Your task to perform on an android device: turn on the 12-hour format for clock Image 0: 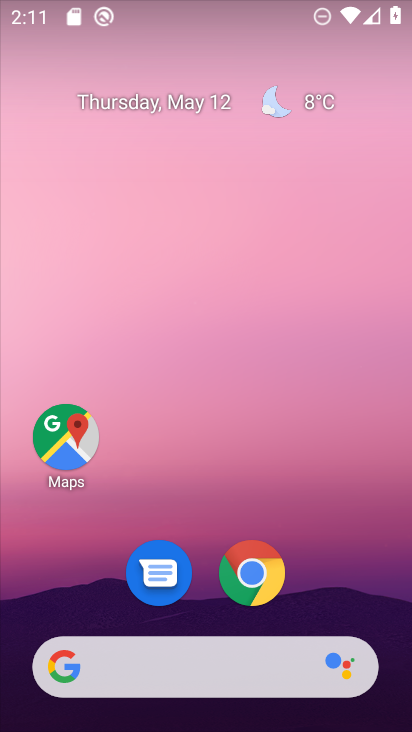
Step 0: drag from (385, 600) to (240, 252)
Your task to perform on an android device: turn on the 12-hour format for clock Image 1: 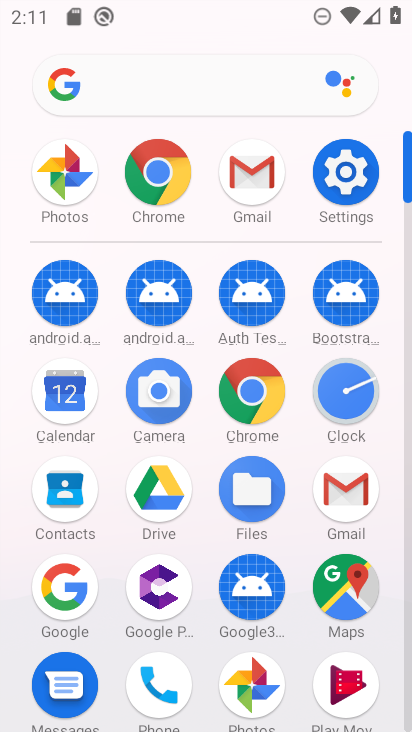
Step 1: click (344, 391)
Your task to perform on an android device: turn on the 12-hour format for clock Image 2: 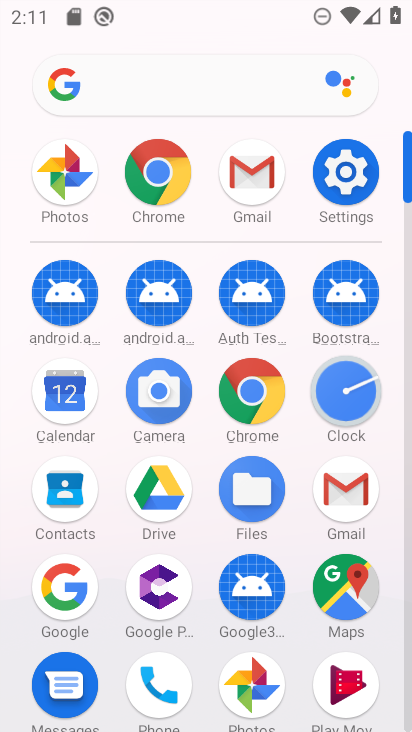
Step 2: click (342, 391)
Your task to perform on an android device: turn on the 12-hour format for clock Image 3: 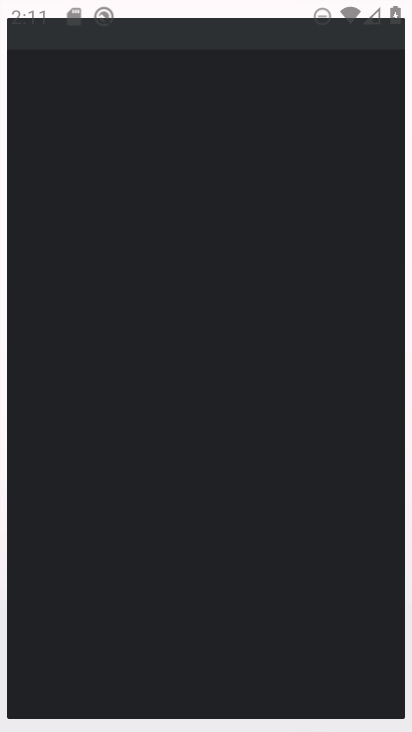
Step 3: click (328, 404)
Your task to perform on an android device: turn on the 12-hour format for clock Image 4: 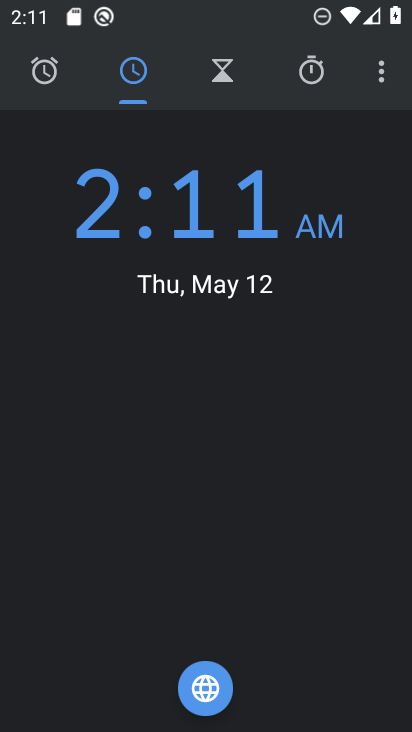
Step 4: click (384, 69)
Your task to perform on an android device: turn on the 12-hour format for clock Image 5: 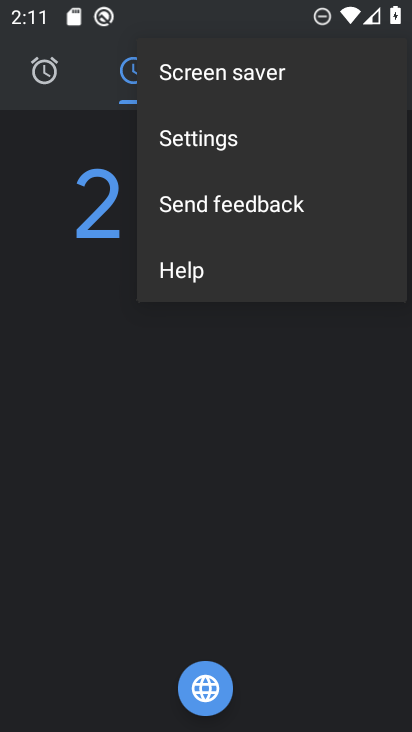
Step 5: click (199, 136)
Your task to perform on an android device: turn on the 12-hour format for clock Image 6: 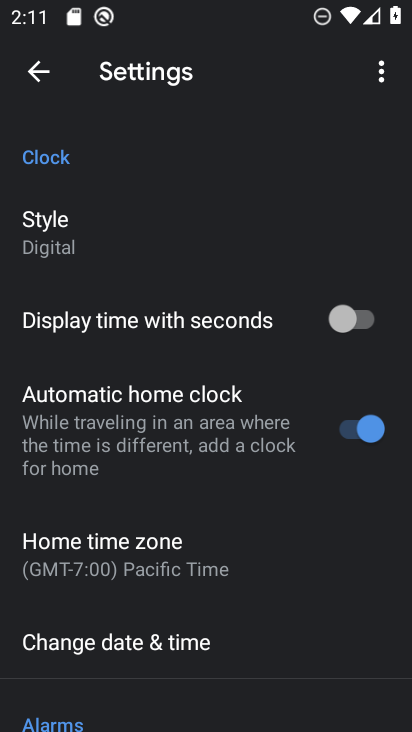
Step 6: drag from (269, 502) to (199, 2)
Your task to perform on an android device: turn on the 12-hour format for clock Image 7: 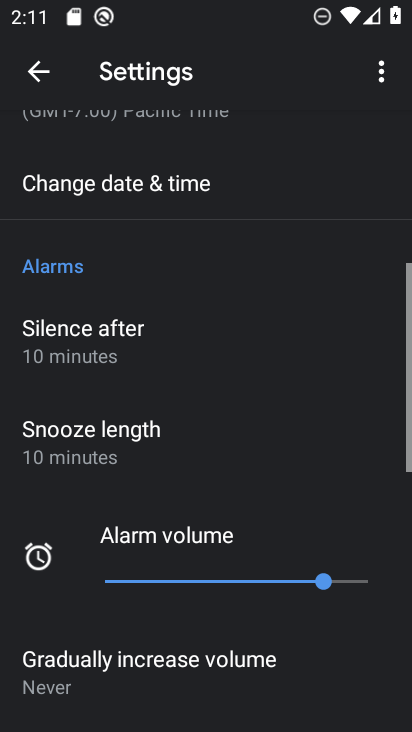
Step 7: drag from (321, 366) to (218, 49)
Your task to perform on an android device: turn on the 12-hour format for clock Image 8: 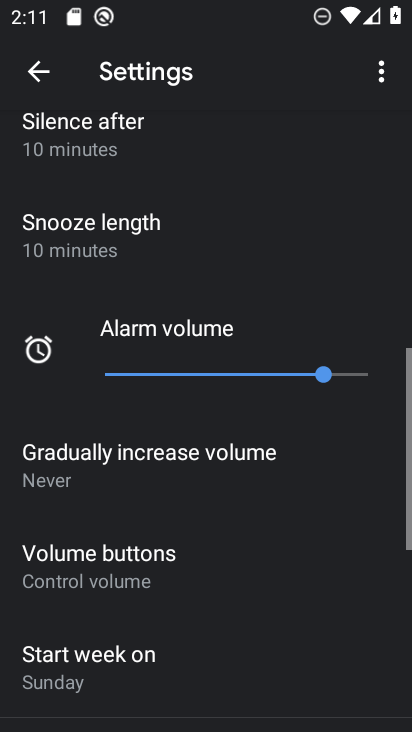
Step 8: drag from (234, 508) to (253, 174)
Your task to perform on an android device: turn on the 12-hour format for clock Image 9: 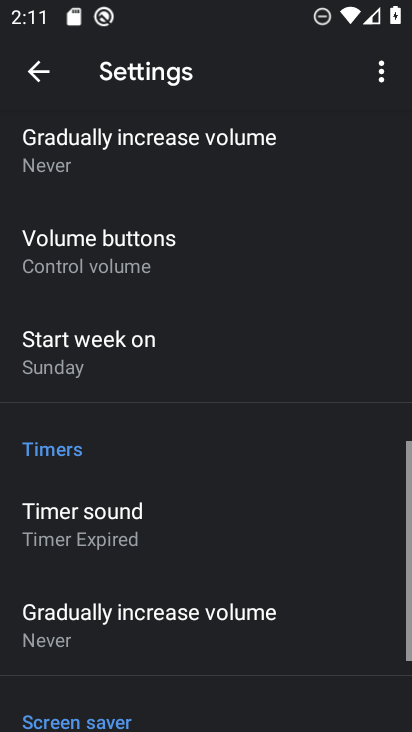
Step 9: drag from (236, 488) to (173, 109)
Your task to perform on an android device: turn on the 12-hour format for clock Image 10: 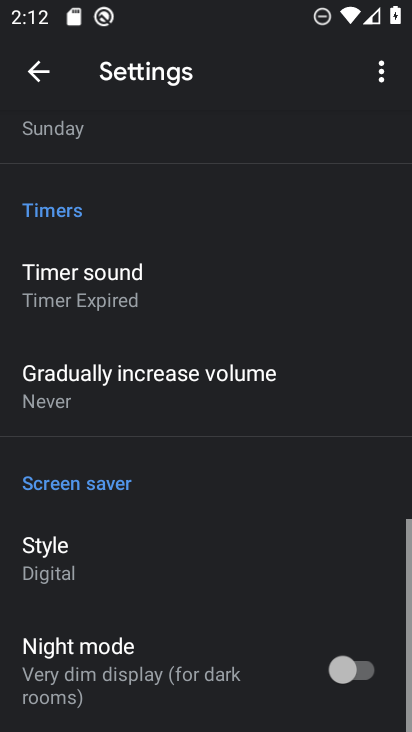
Step 10: drag from (235, 383) to (216, 16)
Your task to perform on an android device: turn on the 12-hour format for clock Image 11: 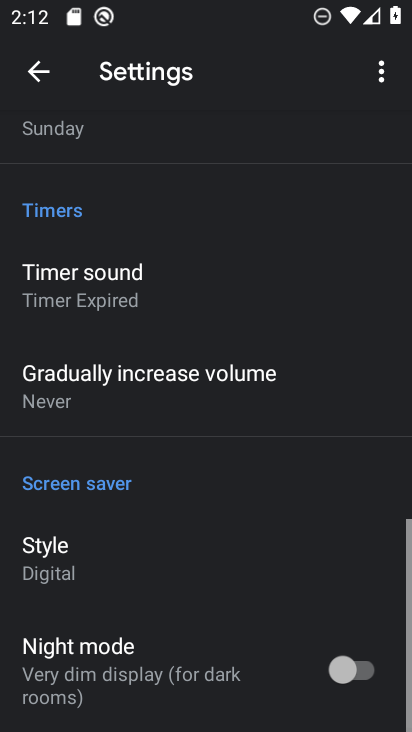
Step 11: drag from (247, 436) to (216, 177)
Your task to perform on an android device: turn on the 12-hour format for clock Image 12: 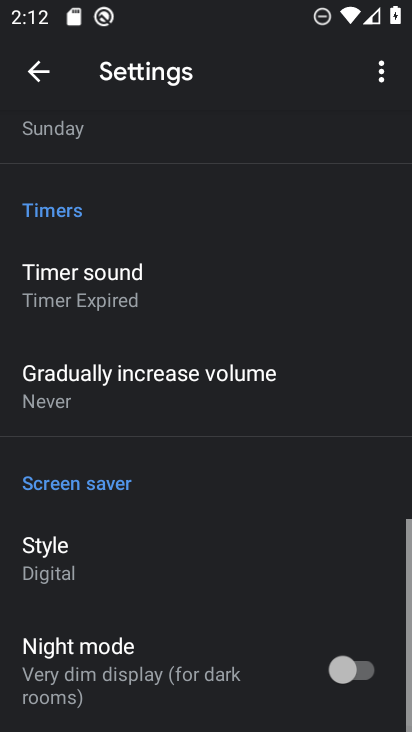
Step 12: drag from (240, 396) to (253, 19)
Your task to perform on an android device: turn on the 12-hour format for clock Image 13: 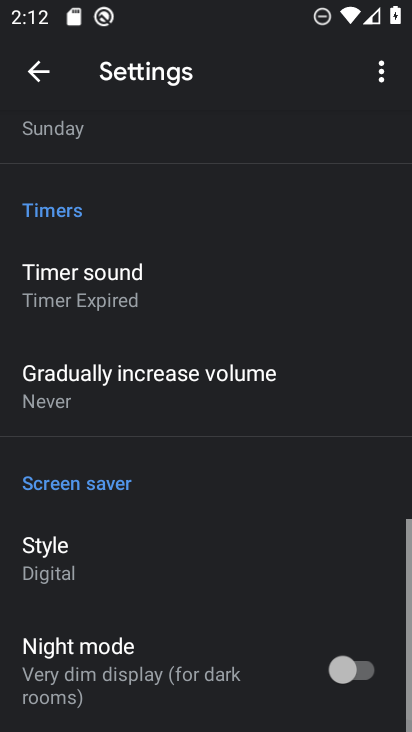
Step 13: drag from (294, 447) to (246, 80)
Your task to perform on an android device: turn on the 12-hour format for clock Image 14: 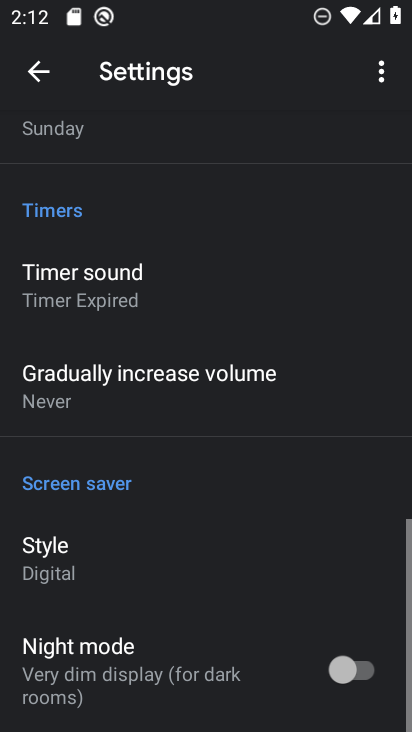
Step 14: drag from (259, 415) to (238, 20)
Your task to perform on an android device: turn on the 12-hour format for clock Image 15: 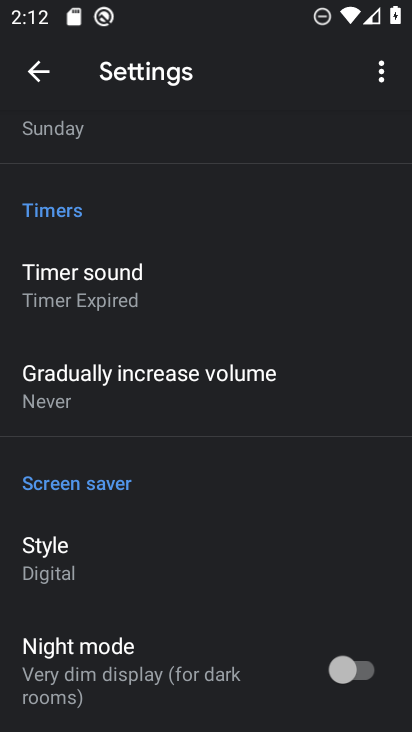
Step 15: drag from (162, 522) to (147, 232)
Your task to perform on an android device: turn on the 12-hour format for clock Image 16: 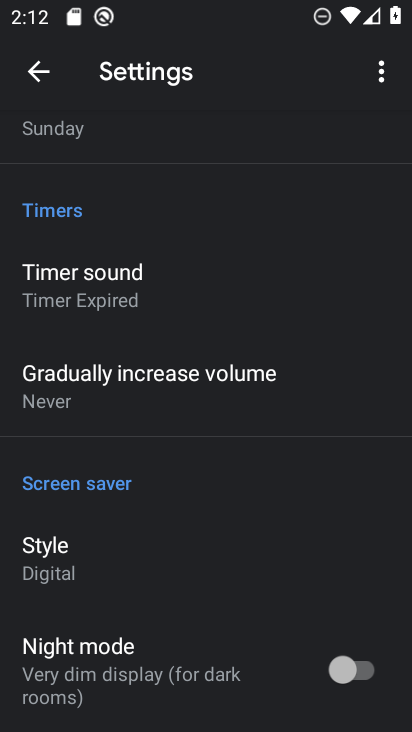
Step 16: drag from (228, 556) to (190, 314)
Your task to perform on an android device: turn on the 12-hour format for clock Image 17: 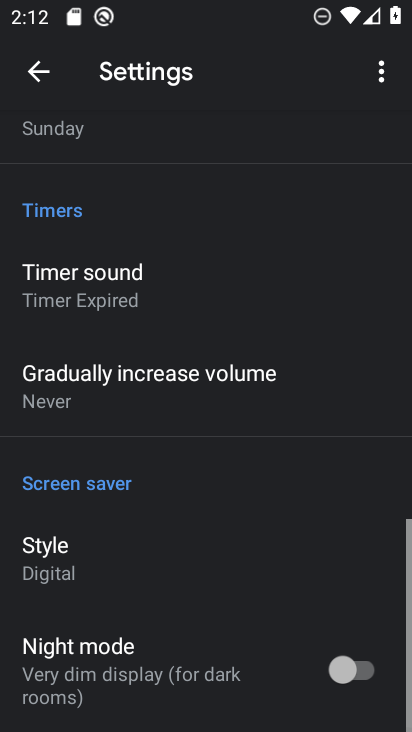
Step 17: drag from (192, 515) to (152, 207)
Your task to perform on an android device: turn on the 12-hour format for clock Image 18: 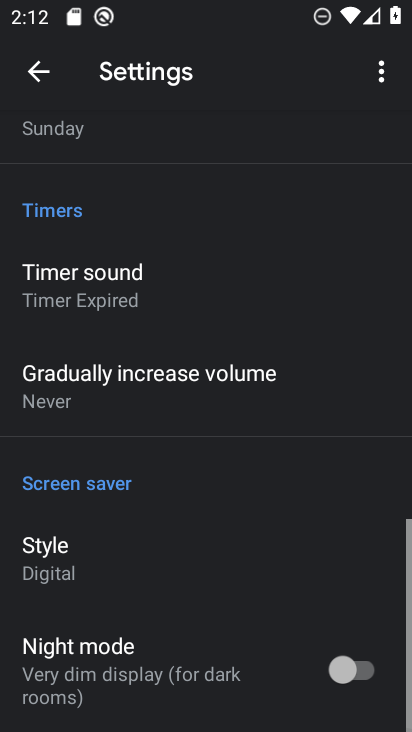
Step 18: drag from (228, 584) to (221, 237)
Your task to perform on an android device: turn on the 12-hour format for clock Image 19: 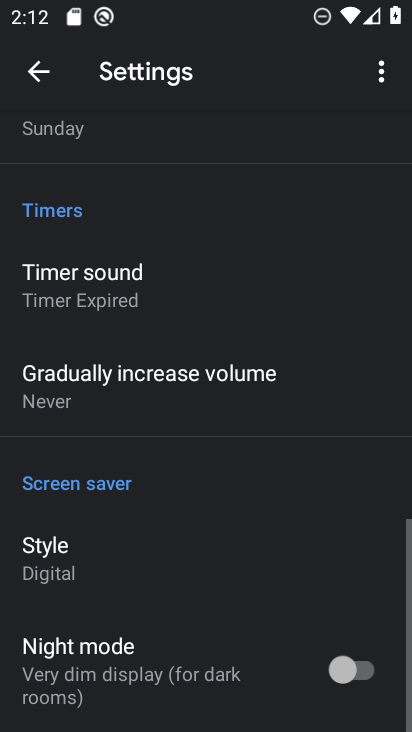
Step 19: drag from (213, 424) to (188, 233)
Your task to perform on an android device: turn on the 12-hour format for clock Image 20: 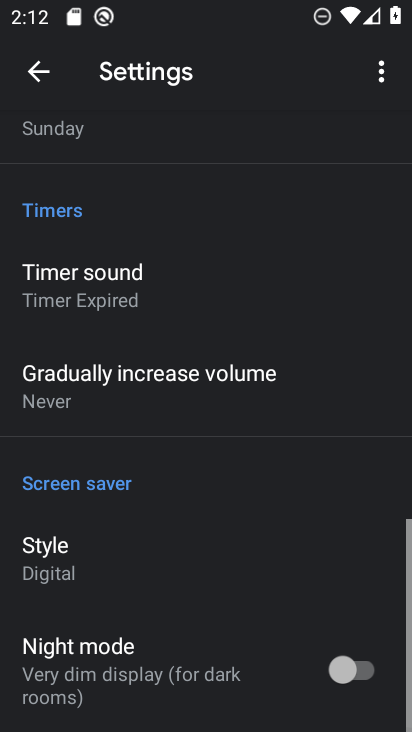
Step 20: drag from (216, 535) to (186, 254)
Your task to perform on an android device: turn on the 12-hour format for clock Image 21: 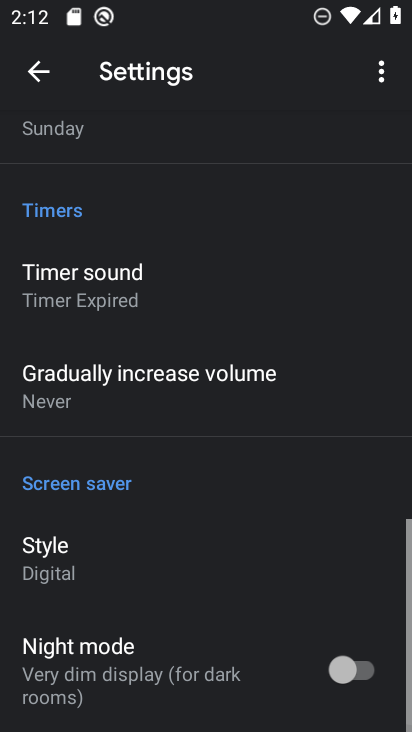
Step 21: drag from (178, 461) to (138, 188)
Your task to perform on an android device: turn on the 12-hour format for clock Image 22: 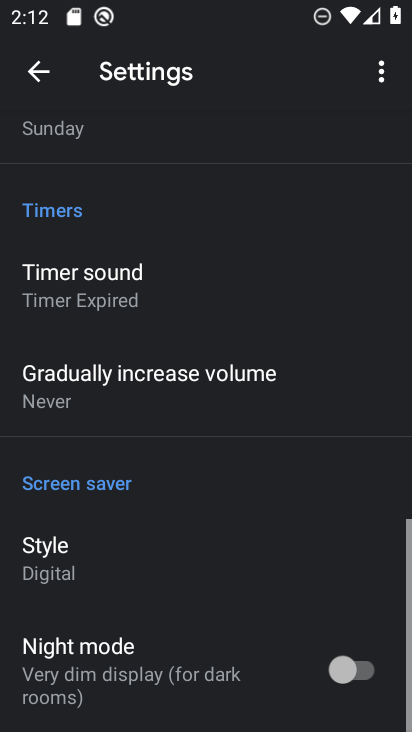
Step 22: drag from (166, 490) to (173, 170)
Your task to perform on an android device: turn on the 12-hour format for clock Image 23: 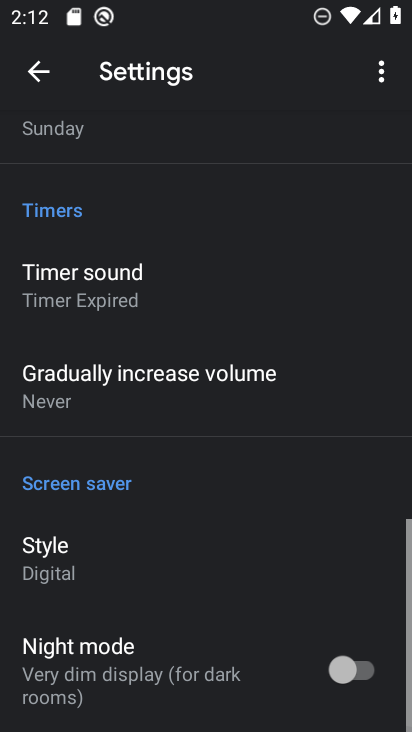
Step 23: drag from (188, 559) to (209, 270)
Your task to perform on an android device: turn on the 12-hour format for clock Image 24: 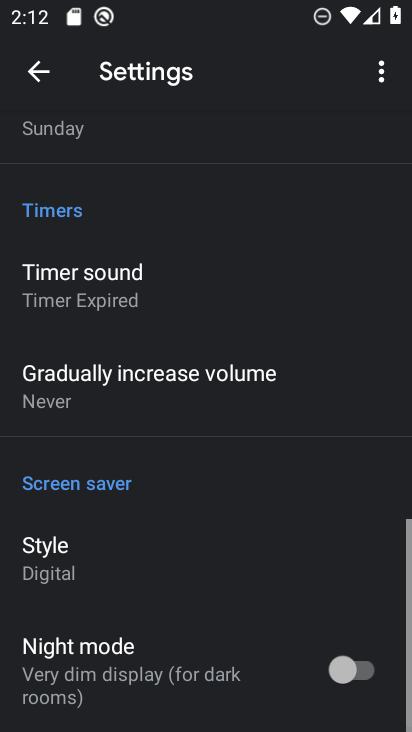
Step 24: drag from (189, 553) to (171, 256)
Your task to perform on an android device: turn on the 12-hour format for clock Image 25: 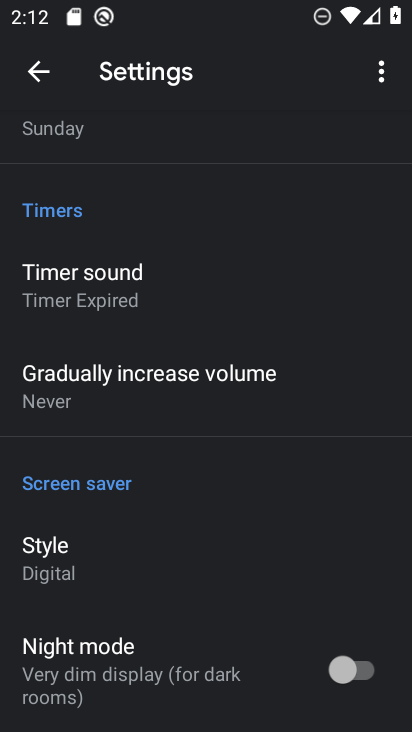
Step 25: drag from (174, 275) to (229, 505)
Your task to perform on an android device: turn on the 12-hour format for clock Image 26: 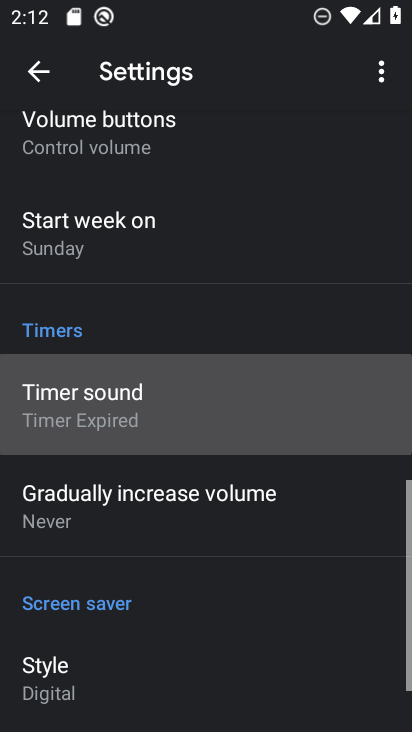
Step 26: drag from (191, 192) to (251, 502)
Your task to perform on an android device: turn on the 12-hour format for clock Image 27: 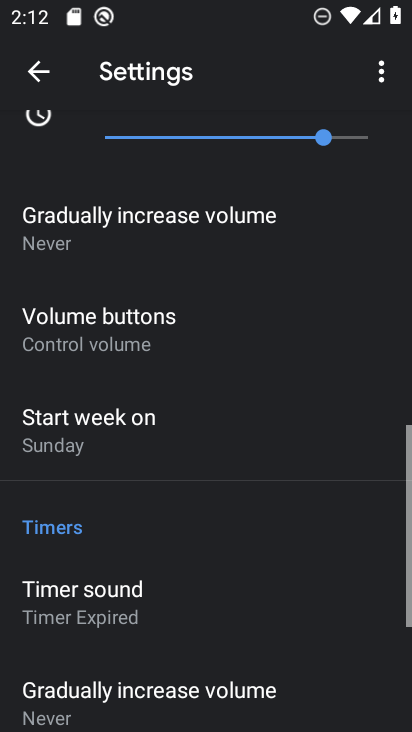
Step 27: drag from (175, 281) to (206, 515)
Your task to perform on an android device: turn on the 12-hour format for clock Image 28: 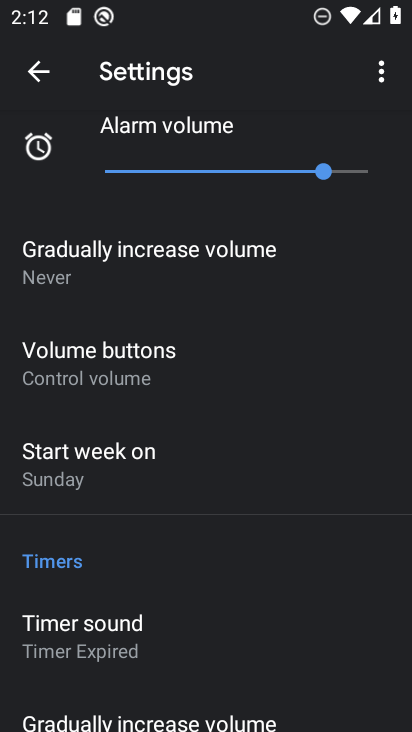
Step 28: drag from (207, 344) to (232, 488)
Your task to perform on an android device: turn on the 12-hour format for clock Image 29: 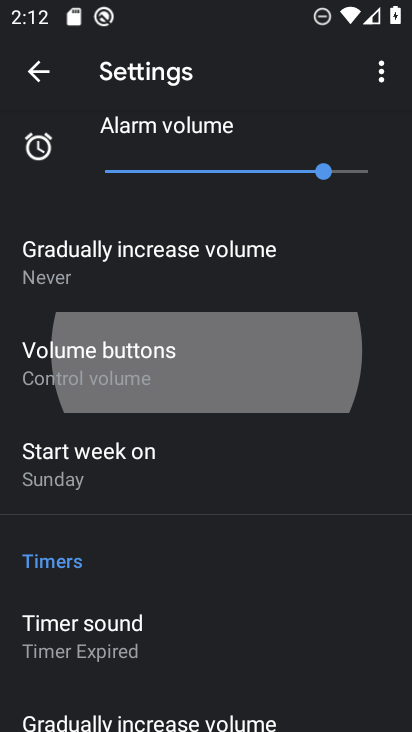
Step 29: drag from (155, 251) to (179, 705)
Your task to perform on an android device: turn on the 12-hour format for clock Image 30: 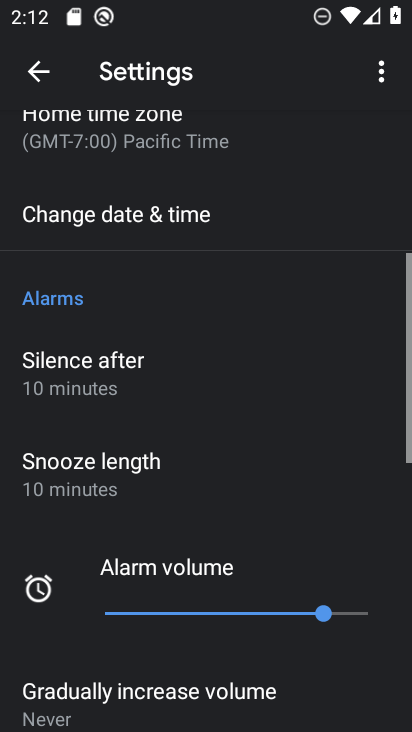
Step 30: drag from (124, 266) to (218, 600)
Your task to perform on an android device: turn on the 12-hour format for clock Image 31: 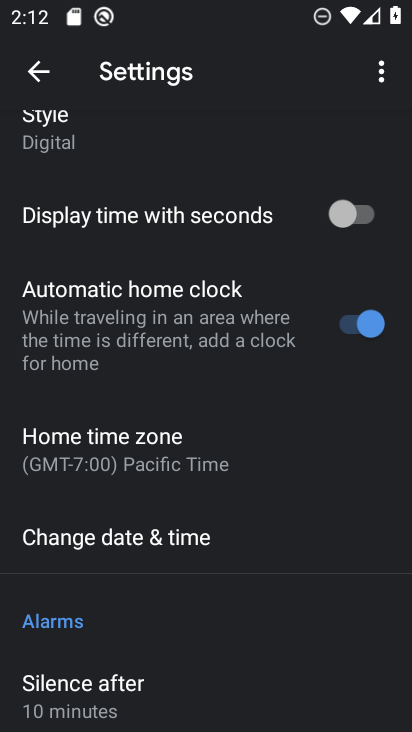
Step 31: click (174, 530)
Your task to perform on an android device: turn on the 12-hour format for clock Image 32: 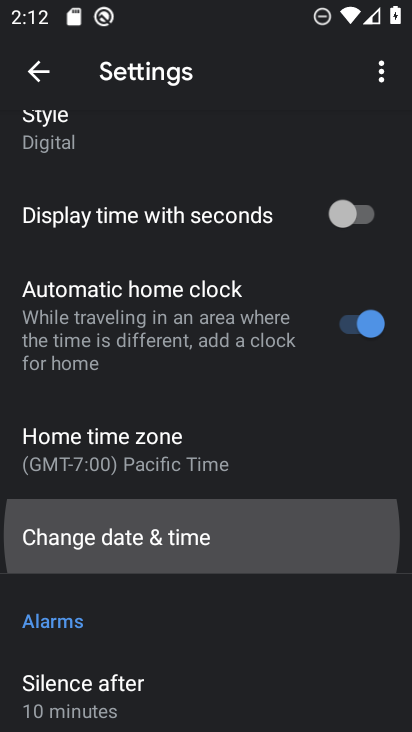
Step 32: click (178, 524)
Your task to perform on an android device: turn on the 12-hour format for clock Image 33: 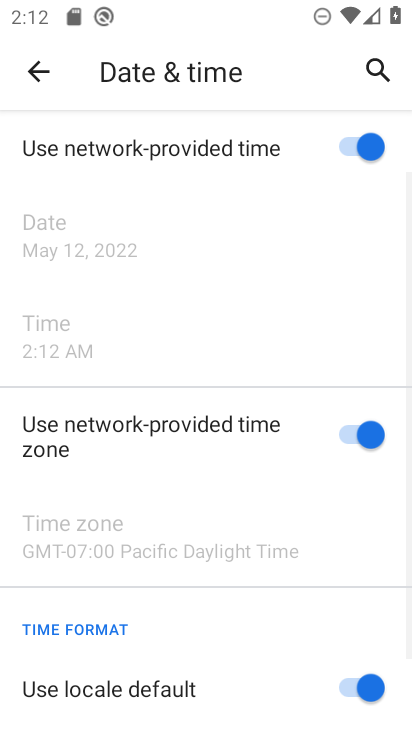
Step 33: task complete